Your task to perform on an android device: Go to CNN.com Image 0: 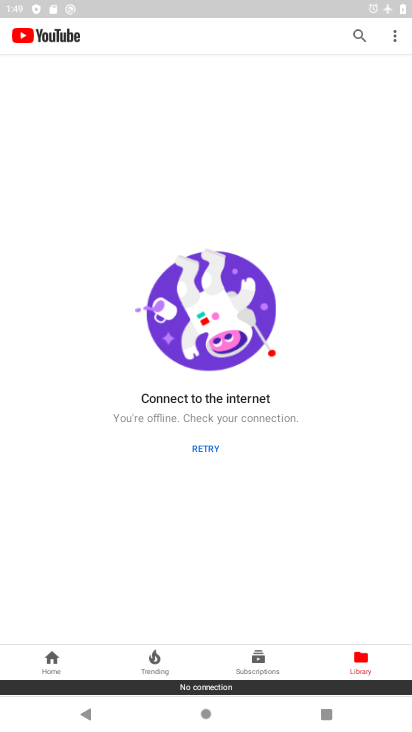
Step 0: press home button
Your task to perform on an android device: Go to CNN.com Image 1: 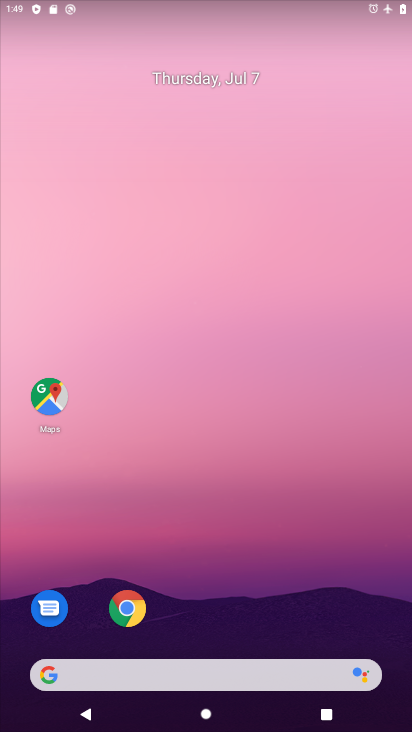
Step 1: click (126, 608)
Your task to perform on an android device: Go to CNN.com Image 2: 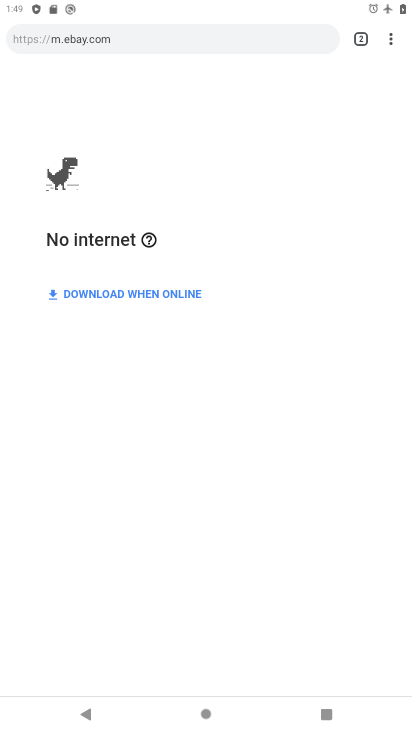
Step 2: click (390, 42)
Your task to perform on an android device: Go to CNN.com Image 3: 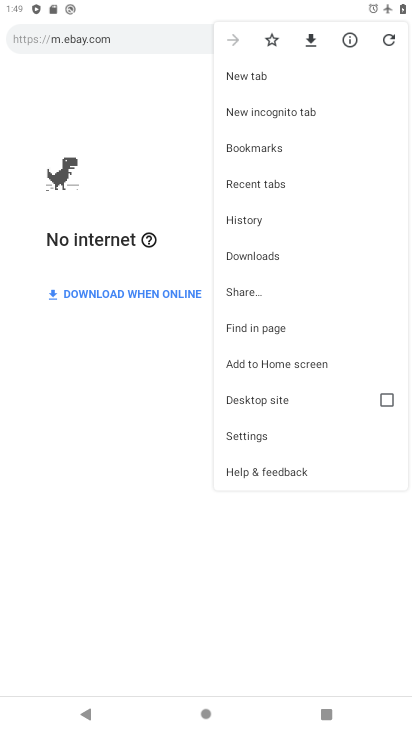
Step 3: click (238, 79)
Your task to perform on an android device: Go to CNN.com Image 4: 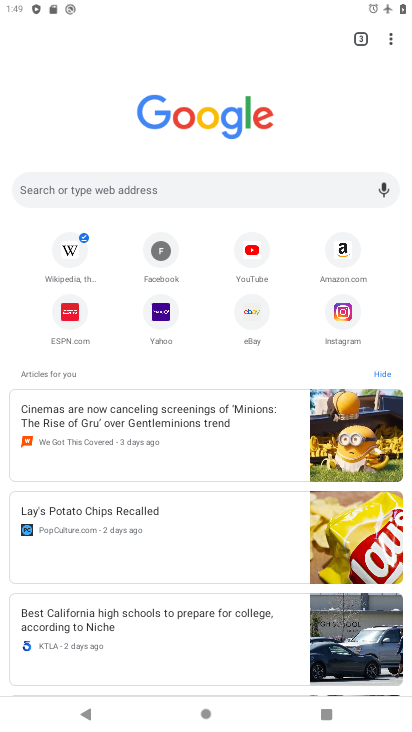
Step 4: click (190, 184)
Your task to perform on an android device: Go to CNN.com Image 5: 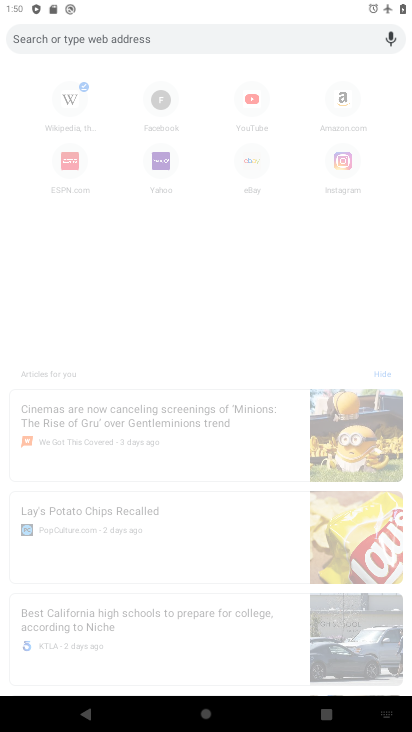
Step 5: type "CNN.com"
Your task to perform on an android device: Go to CNN.com Image 6: 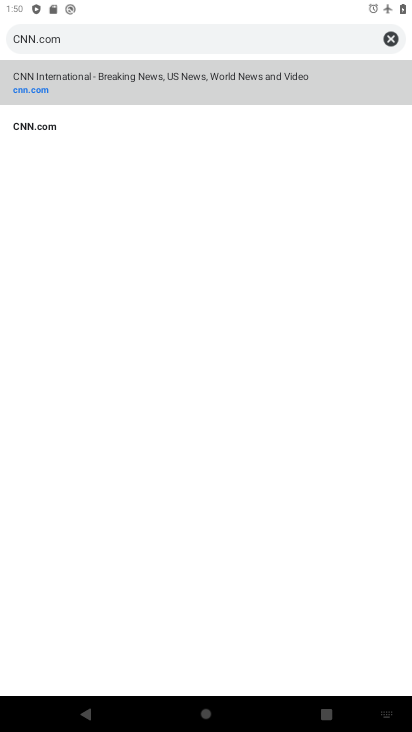
Step 6: click (181, 78)
Your task to perform on an android device: Go to CNN.com Image 7: 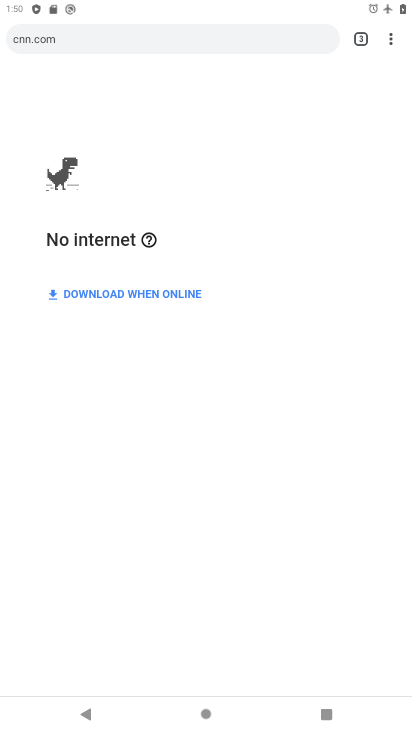
Step 7: task complete